Your task to perform on an android device: set the timer Image 0: 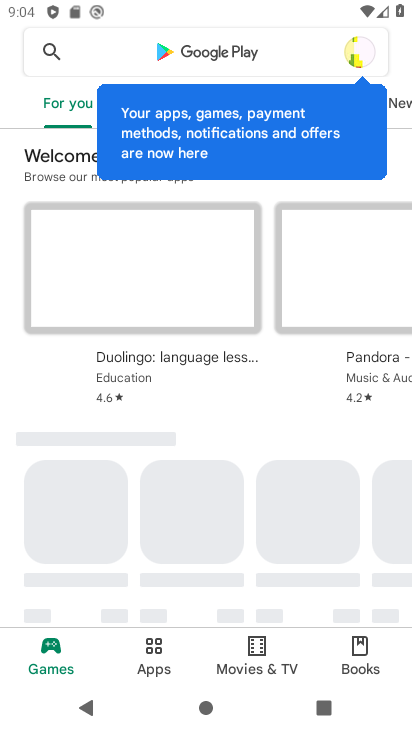
Step 0: press home button
Your task to perform on an android device: set the timer Image 1: 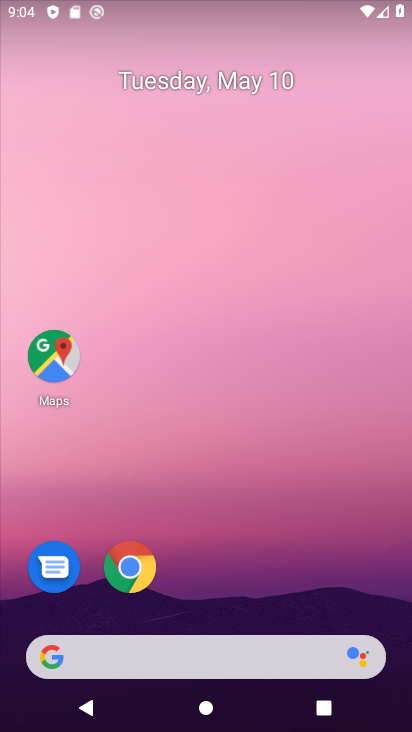
Step 1: drag from (17, 589) to (229, 183)
Your task to perform on an android device: set the timer Image 2: 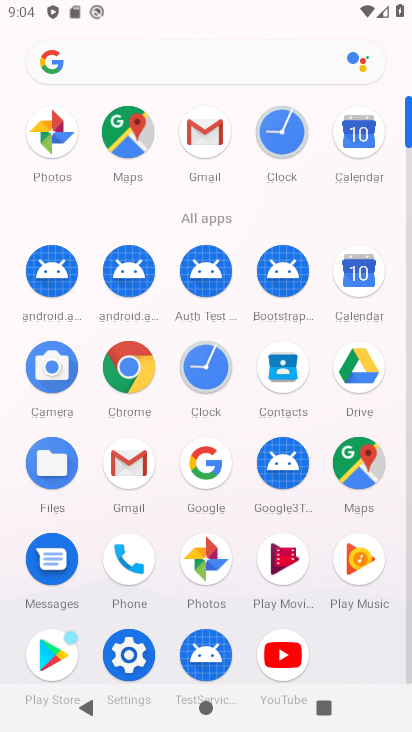
Step 2: click (200, 369)
Your task to perform on an android device: set the timer Image 3: 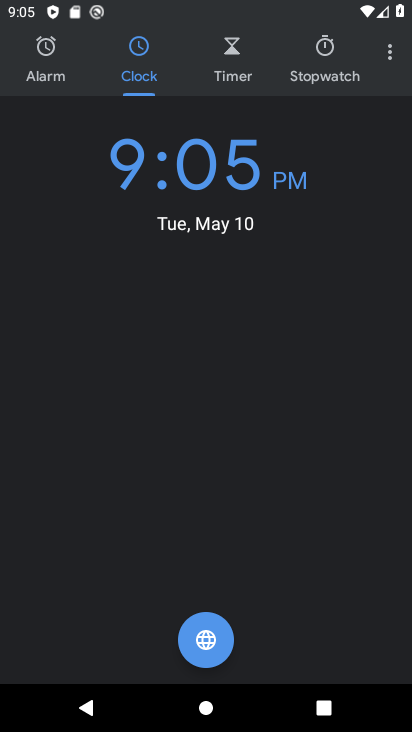
Step 3: click (336, 61)
Your task to perform on an android device: set the timer Image 4: 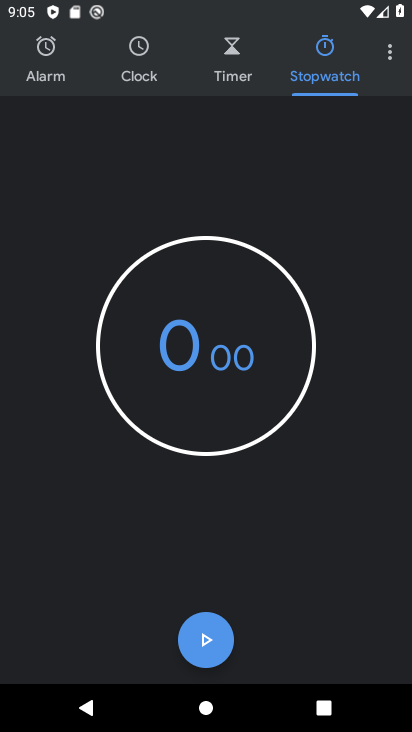
Step 4: click (238, 63)
Your task to perform on an android device: set the timer Image 5: 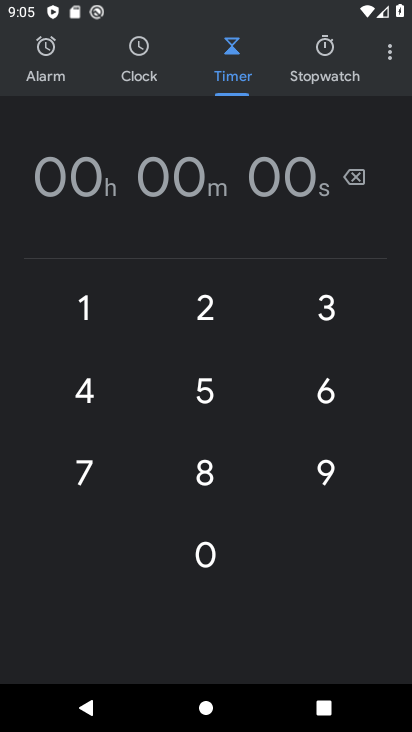
Step 5: click (84, 320)
Your task to perform on an android device: set the timer Image 6: 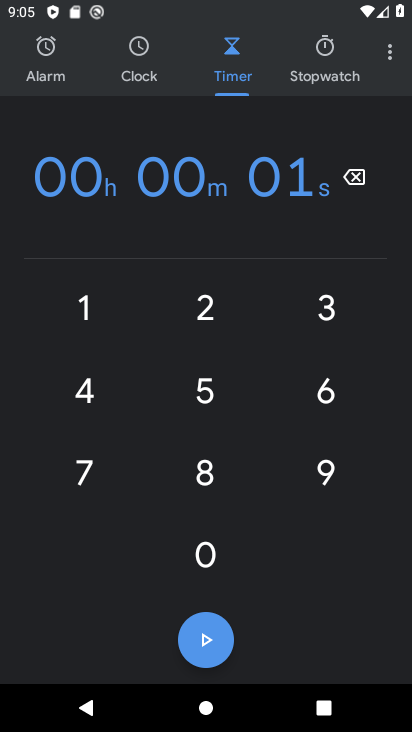
Step 6: click (214, 560)
Your task to perform on an android device: set the timer Image 7: 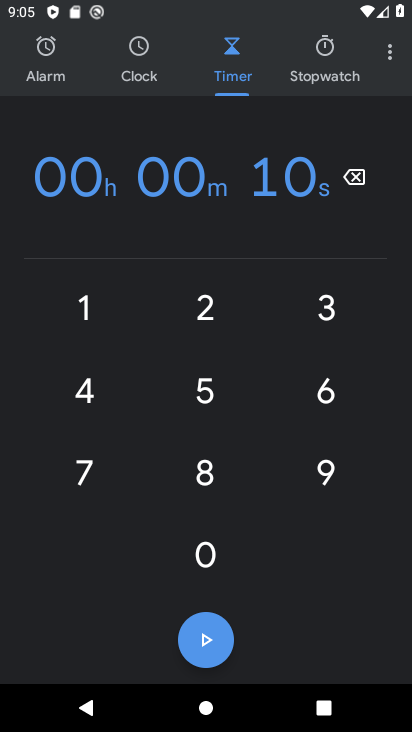
Step 7: click (214, 560)
Your task to perform on an android device: set the timer Image 8: 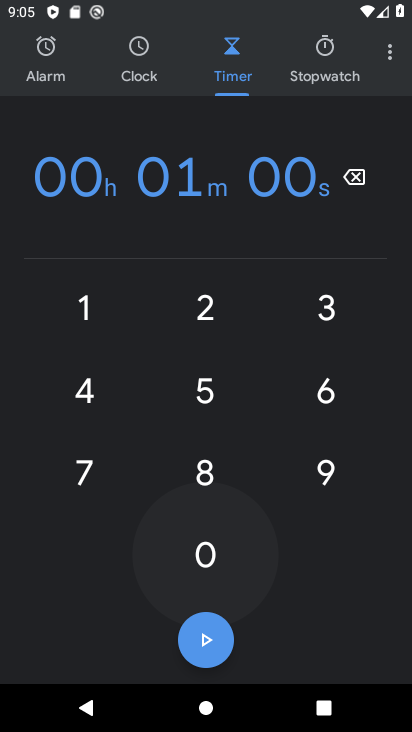
Step 8: click (214, 560)
Your task to perform on an android device: set the timer Image 9: 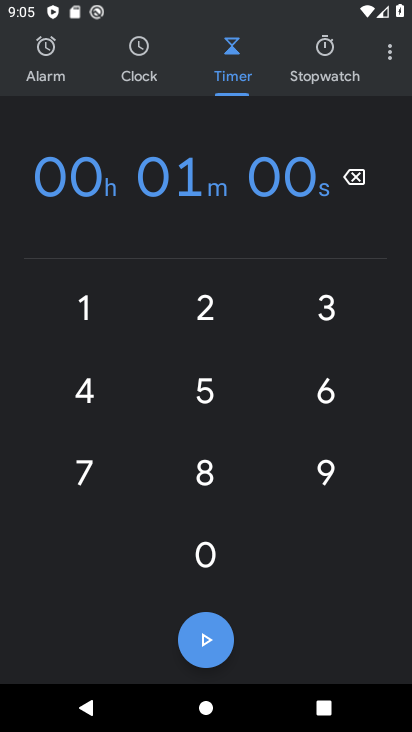
Step 9: click (214, 560)
Your task to perform on an android device: set the timer Image 10: 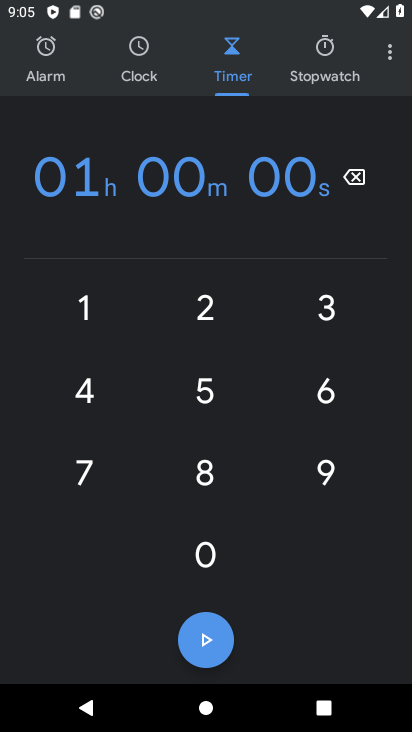
Step 10: click (207, 639)
Your task to perform on an android device: set the timer Image 11: 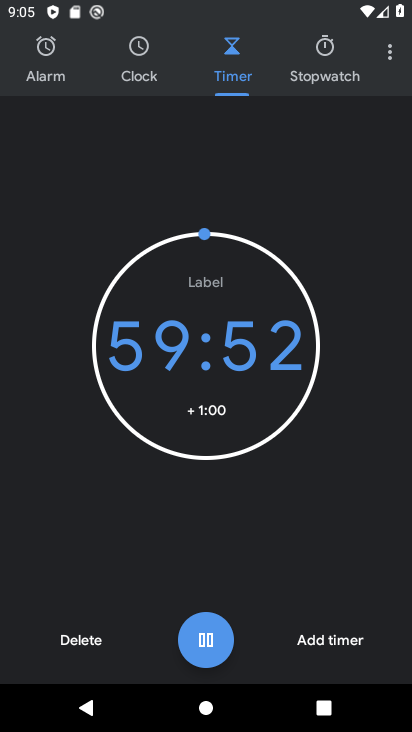
Step 11: task complete